Your task to perform on an android device: turn vacation reply on in the gmail app Image 0: 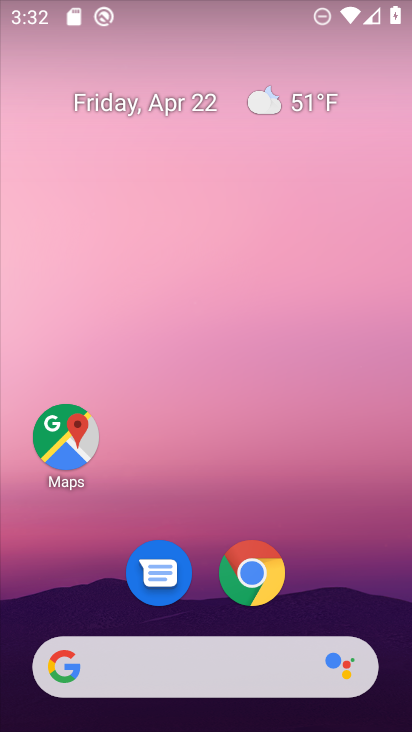
Step 0: drag from (327, 593) to (301, 136)
Your task to perform on an android device: turn vacation reply on in the gmail app Image 1: 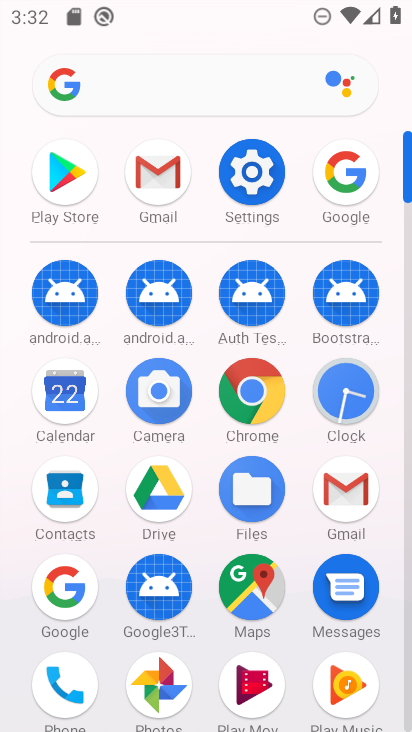
Step 1: click (122, 179)
Your task to perform on an android device: turn vacation reply on in the gmail app Image 2: 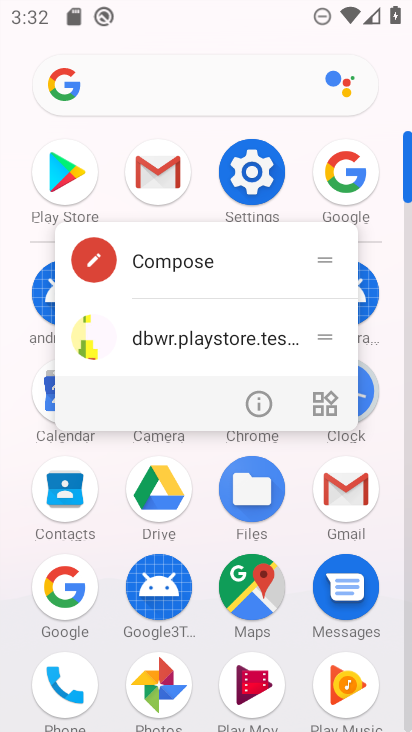
Step 2: click (141, 169)
Your task to perform on an android device: turn vacation reply on in the gmail app Image 3: 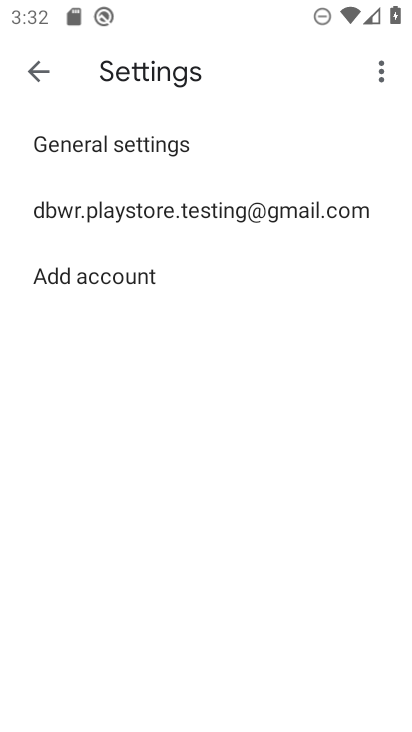
Step 3: click (169, 209)
Your task to perform on an android device: turn vacation reply on in the gmail app Image 4: 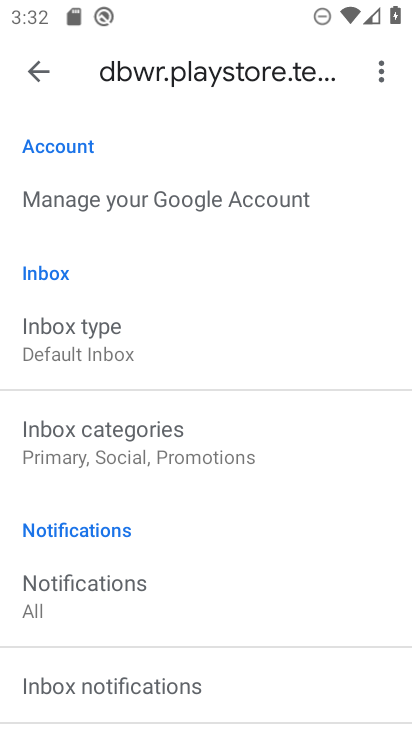
Step 4: drag from (185, 585) to (212, 152)
Your task to perform on an android device: turn vacation reply on in the gmail app Image 5: 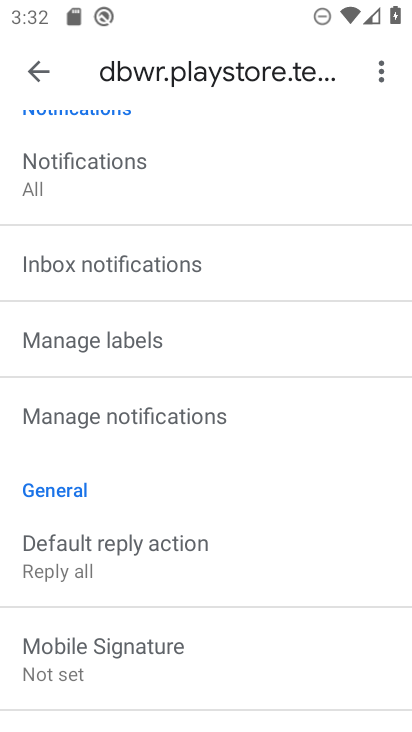
Step 5: drag from (235, 620) to (248, 239)
Your task to perform on an android device: turn vacation reply on in the gmail app Image 6: 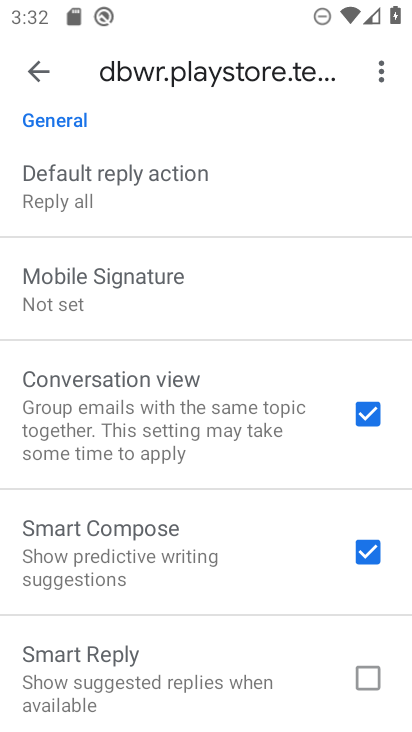
Step 6: drag from (219, 524) to (235, 194)
Your task to perform on an android device: turn vacation reply on in the gmail app Image 7: 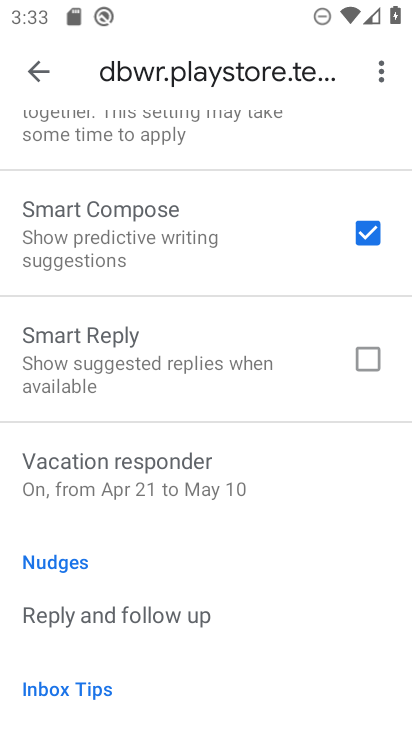
Step 7: click (211, 483)
Your task to perform on an android device: turn vacation reply on in the gmail app Image 8: 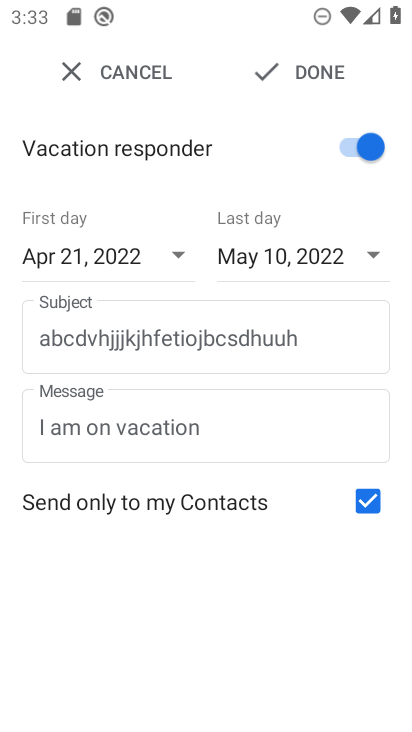
Step 8: click (336, 80)
Your task to perform on an android device: turn vacation reply on in the gmail app Image 9: 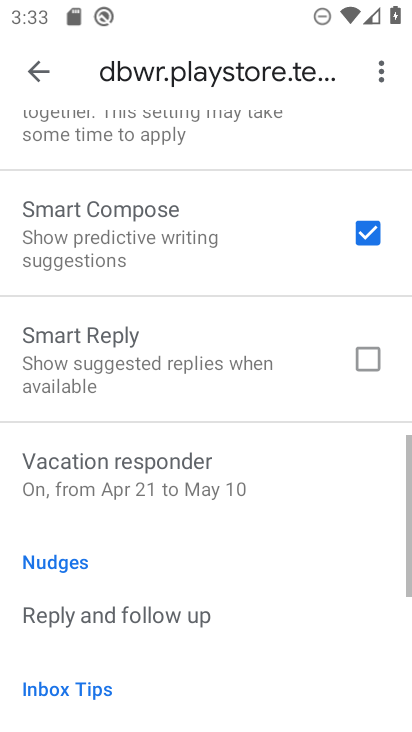
Step 9: task complete